Your task to perform on an android device: turn on airplane mode Image 0: 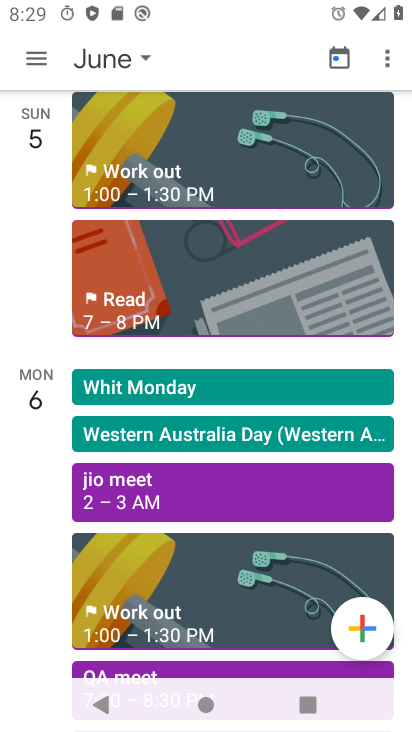
Step 0: press home button
Your task to perform on an android device: turn on airplane mode Image 1: 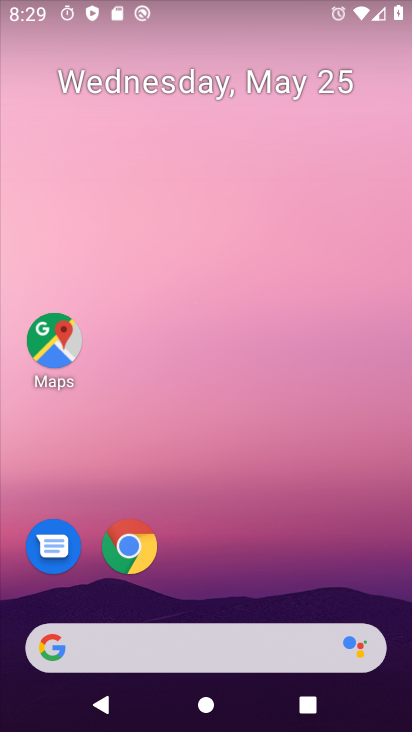
Step 1: drag from (198, 601) to (173, 119)
Your task to perform on an android device: turn on airplane mode Image 2: 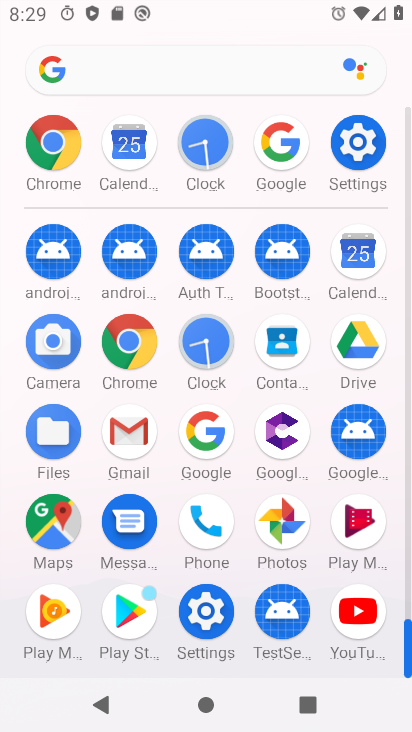
Step 2: click (353, 147)
Your task to perform on an android device: turn on airplane mode Image 3: 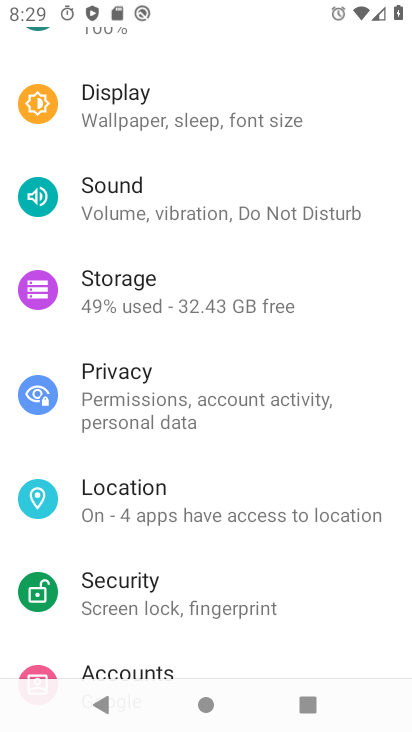
Step 3: drag from (148, 230) to (153, 473)
Your task to perform on an android device: turn on airplane mode Image 4: 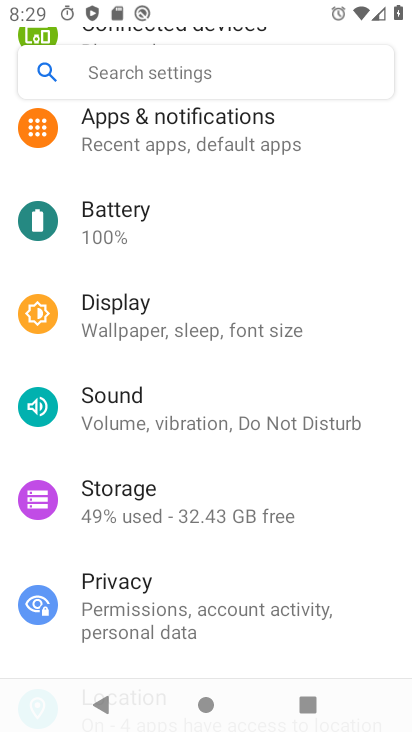
Step 4: drag from (137, 225) to (141, 511)
Your task to perform on an android device: turn on airplane mode Image 5: 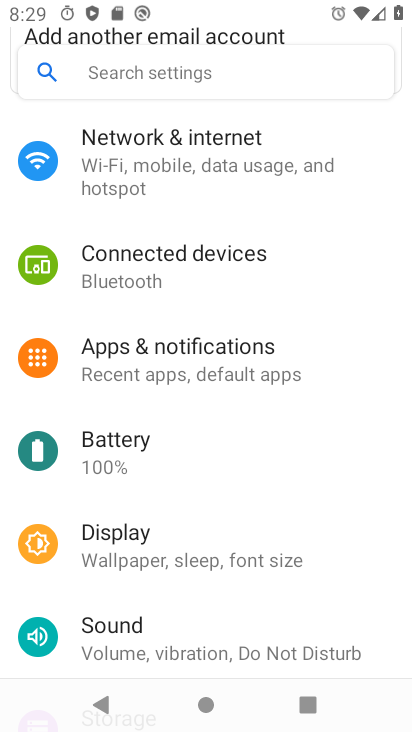
Step 5: click (185, 157)
Your task to perform on an android device: turn on airplane mode Image 6: 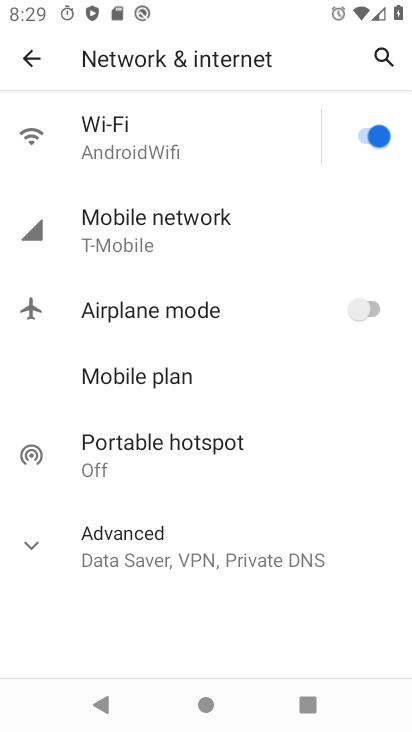
Step 6: click (375, 323)
Your task to perform on an android device: turn on airplane mode Image 7: 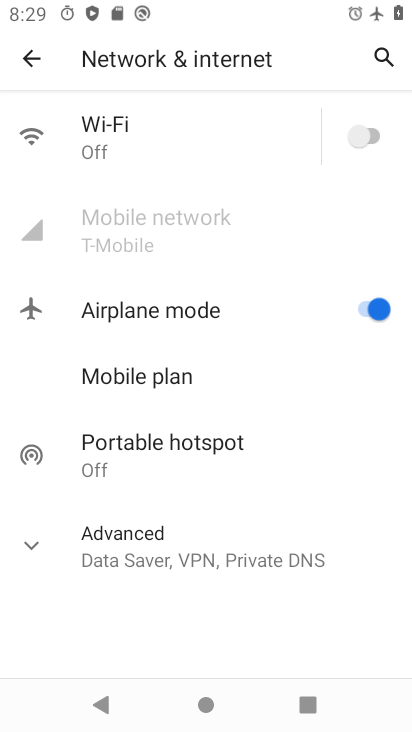
Step 7: task complete